Your task to perform on an android device: open the mobile data screen to see how much data has been used Image 0: 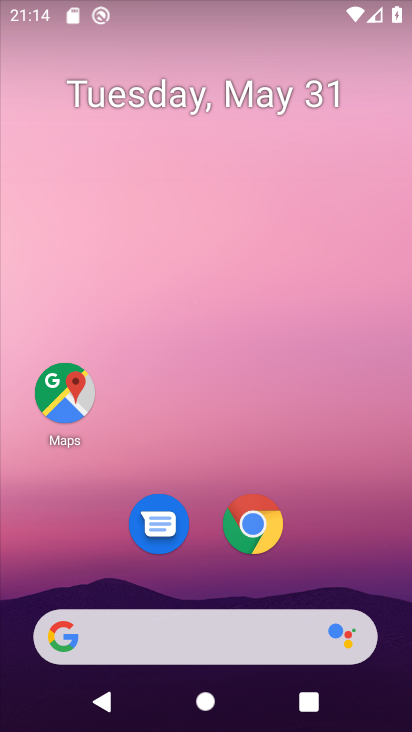
Step 0: drag from (330, 505) to (270, 32)
Your task to perform on an android device: open the mobile data screen to see how much data has been used Image 1: 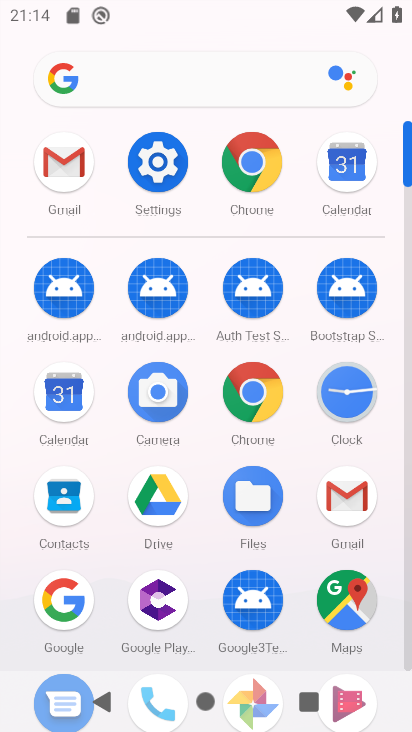
Step 1: click (167, 140)
Your task to perform on an android device: open the mobile data screen to see how much data has been used Image 2: 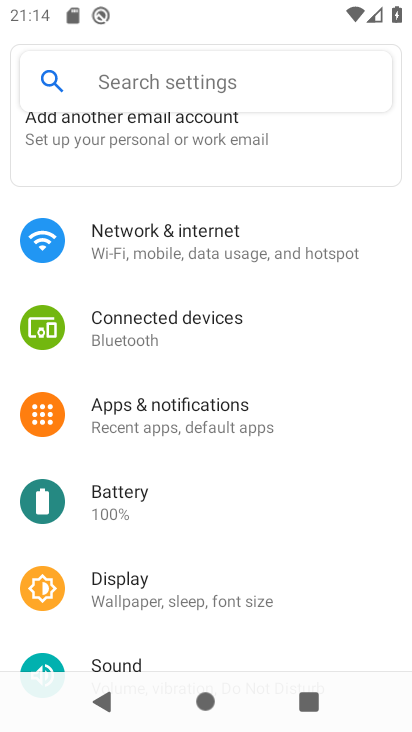
Step 2: click (253, 232)
Your task to perform on an android device: open the mobile data screen to see how much data has been used Image 3: 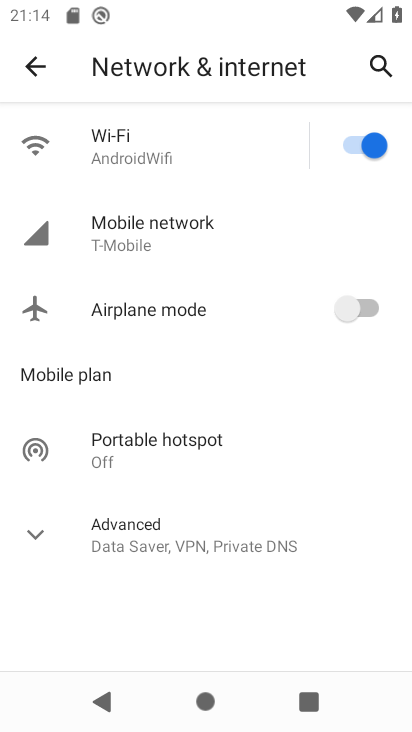
Step 3: click (253, 232)
Your task to perform on an android device: open the mobile data screen to see how much data has been used Image 4: 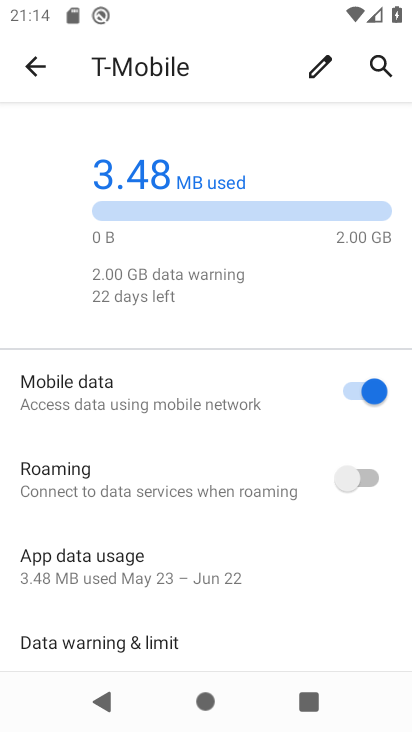
Step 4: task complete